Your task to perform on an android device: turn pop-ups off in chrome Image 0: 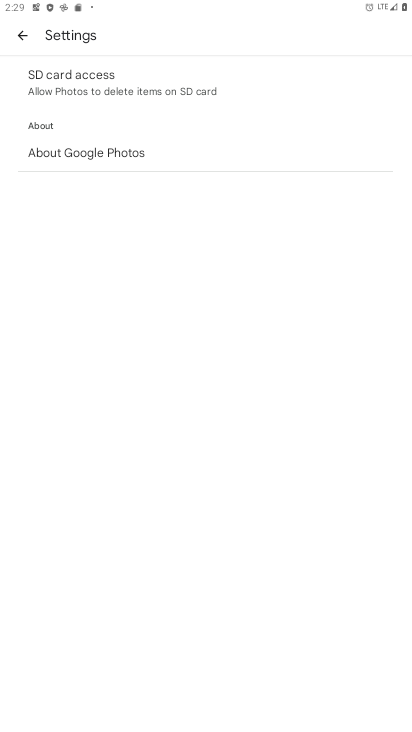
Step 0: press home button
Your task to perform on an android device: turn pop-ups off in chrome Image 1: 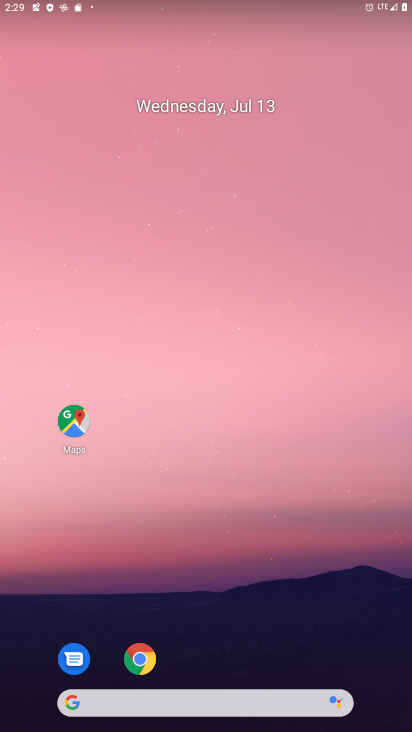
Step 1: click (144, 654)
Your task to perform on an android device: turn pop-ups off in chrome Image 2: 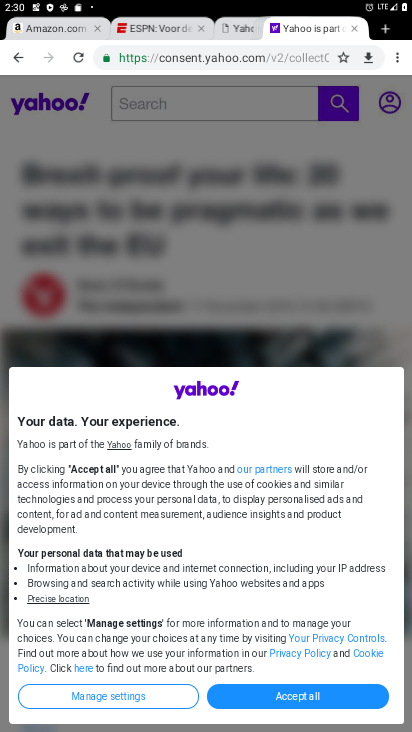
Step 2: click (397, 62)
Your task to perform on an android device: turn pop-ups off in chrome Image 3: 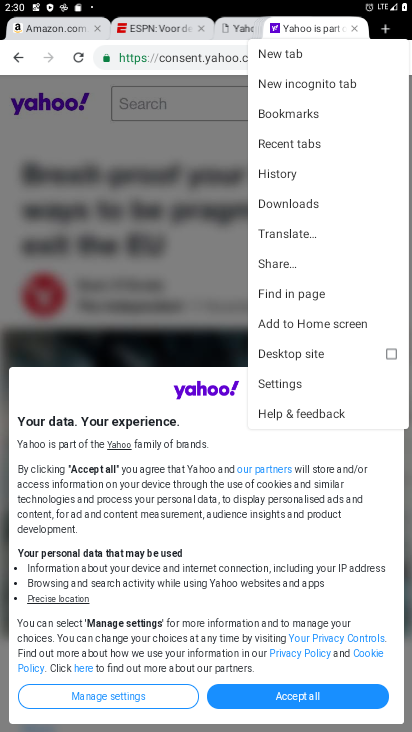
Step 3: click (274, 384)
Your task to perform on an android device: turn pop-ups off in chrome Image 4: 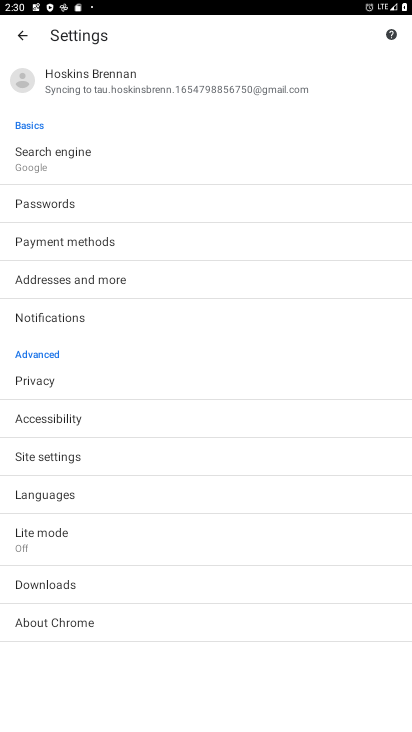
Step 4: click (51, 455)
Your task to perform on an android device: turn pop-ups off in chrome Image 5: 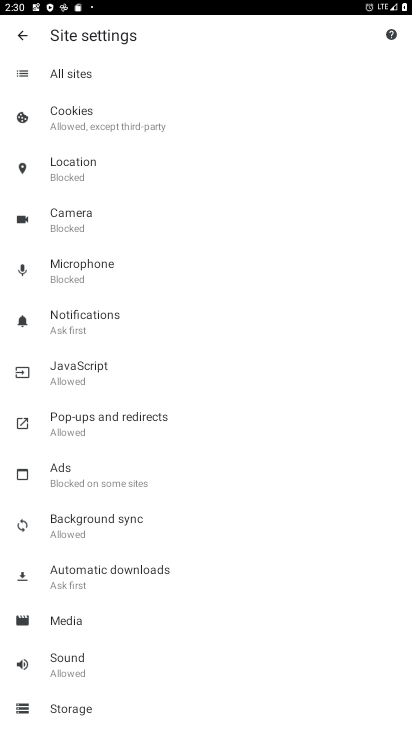
Step 5: click (108, 416)
Your task to perform on an android device: turn pop-ups off in chrome Image 6: 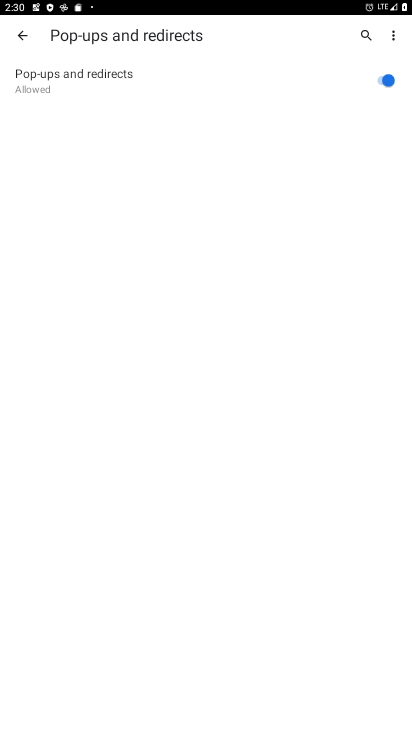
Step 6: click (381, 80)
Your task to perform on an android device: turn pop-ups off in chrome Image 7: 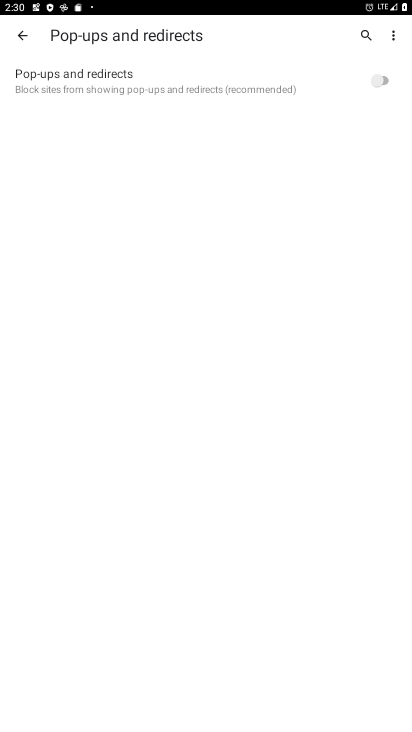
Step 7: task complete